Your task to perform on an android device: Go to Reddit.com Image 0: 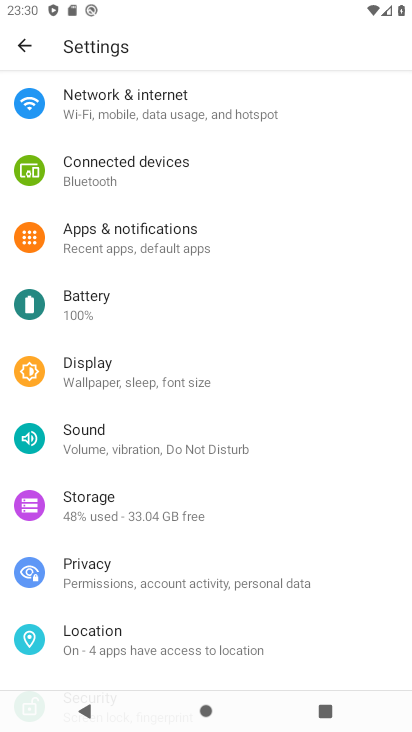
Step 0: press home button
Your task to perform on an android device: Go to Reddit.com Image 1: 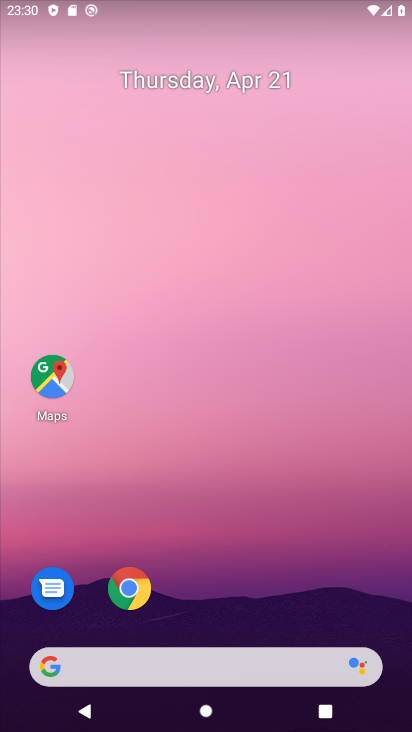
Step 1: click (149, 673)
Your task to perform on an android device: Go to Reddit.com Image 2: 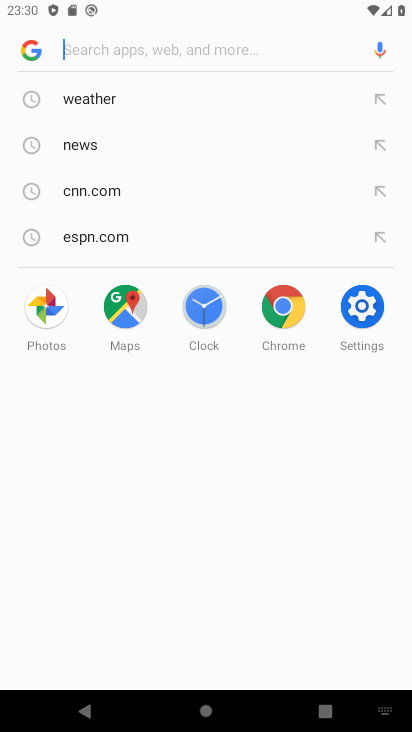
Step 2: type "Reddit.com"
Your task to perform on an android device: Go to Reddit.com Image 3: 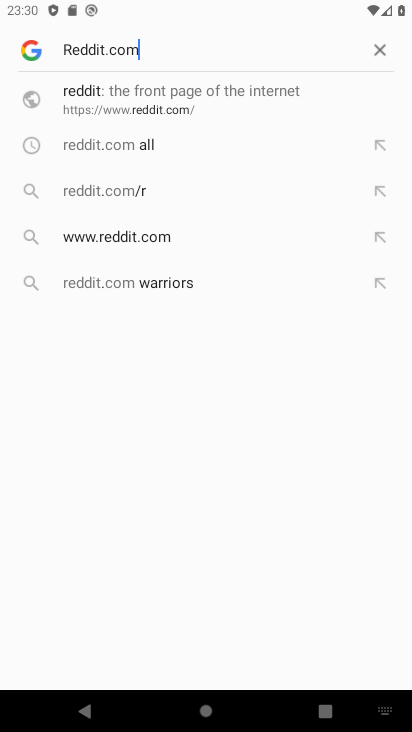
Step 3: click (147, 235)
Your task to perform on an android device: Go to Reddit.com Image 4: 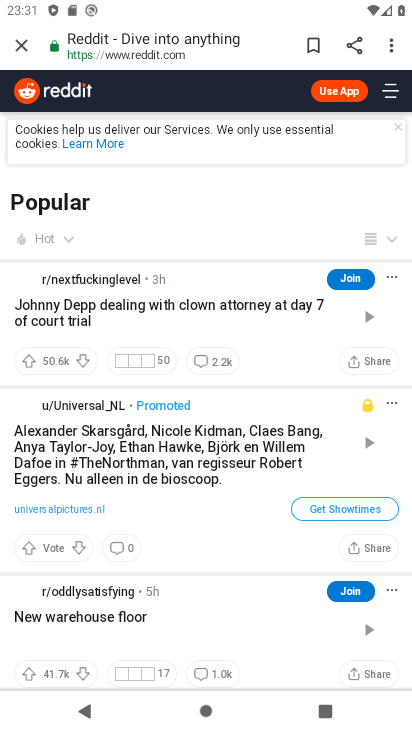
Step 4: task complete